Your task to perform on an android device: Open settings Image 0: 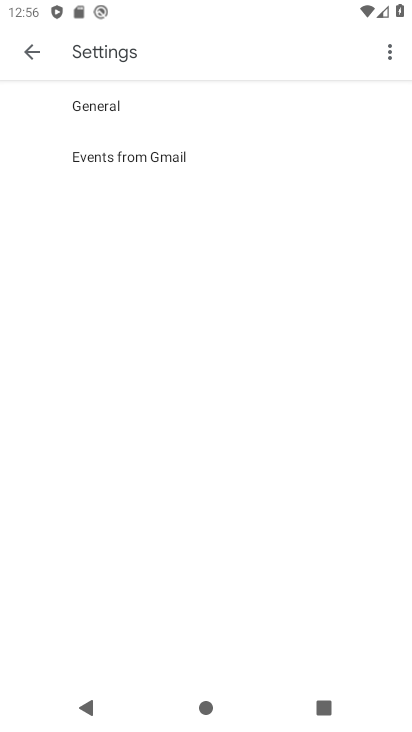
Step 0: press home button
Your task to perform on an android device: Open settings Image 1: 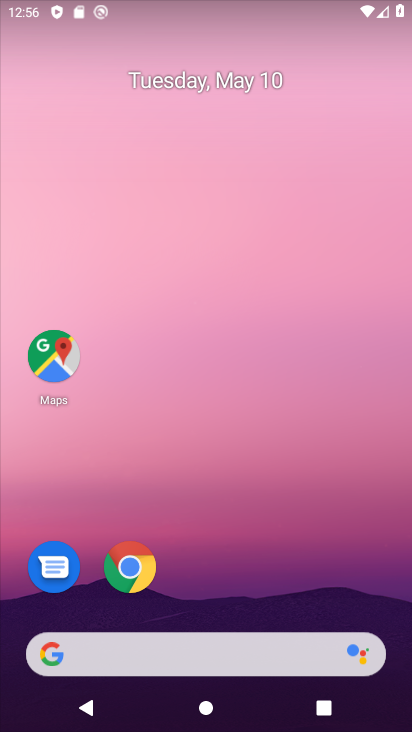
Step 1: drag from (320, 583) to (282, 39)
Your task to perform on an android device: Open settings Image 2: 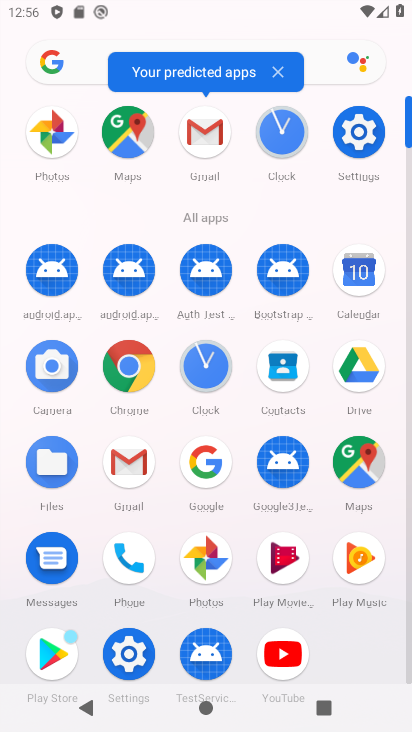
Step 2: click (368, 144)
Your task to perform on an android device: Open settings Image 3: 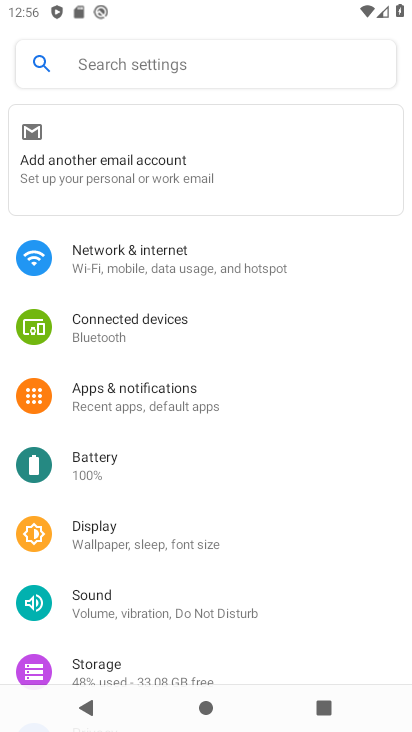
Step 3: task complete